Your task to perform on an android device: What's the weather today? Image 0: 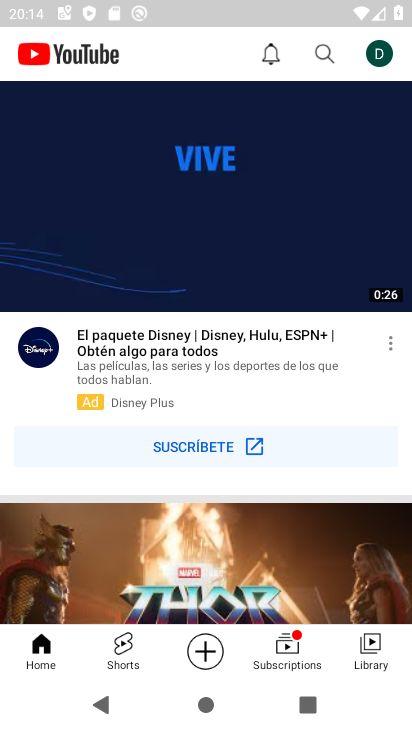
Step 0: press home button
Your task to perform on an android device: What's the weather today? Image 1: 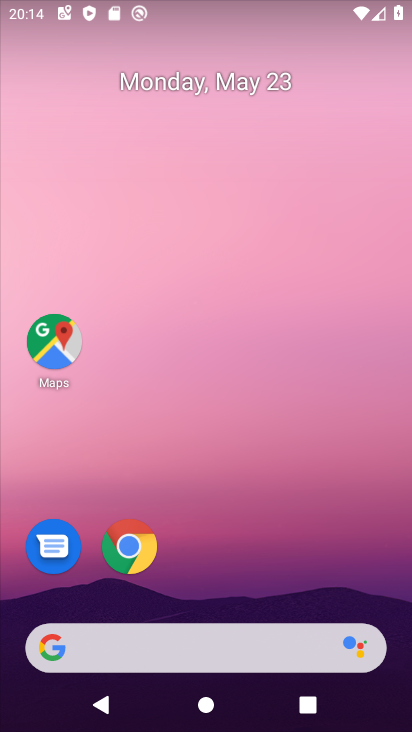
Step 1: click (232, 649)
Your task to perform on an android device: What's the weather today? Image 2: 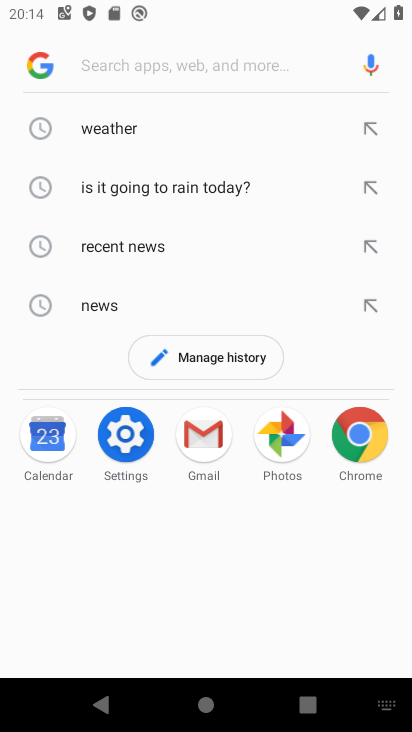
Step 2: click (124, 125)
Your task to perform on an android device: What's the weather today? Image 3: 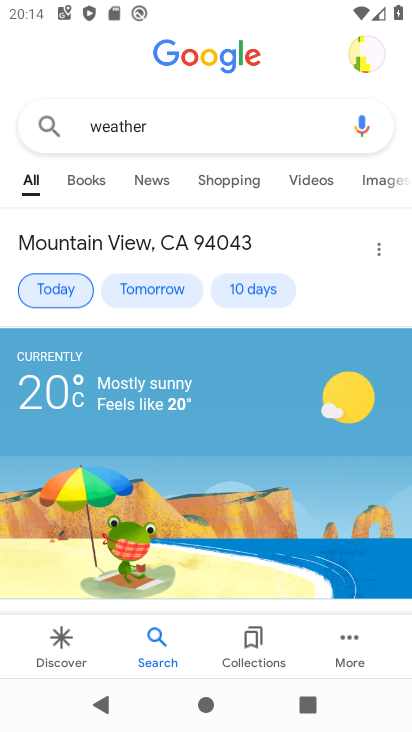
Step 3: task complete